Your task to perform on an android device: create a new album in the google photos Image 0: 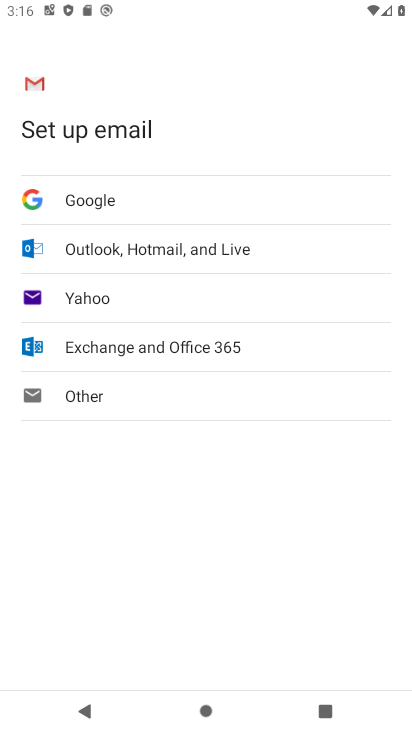
Step 0: press home button
Your task to perform on an android device: create a new album in the google photos Image 1: 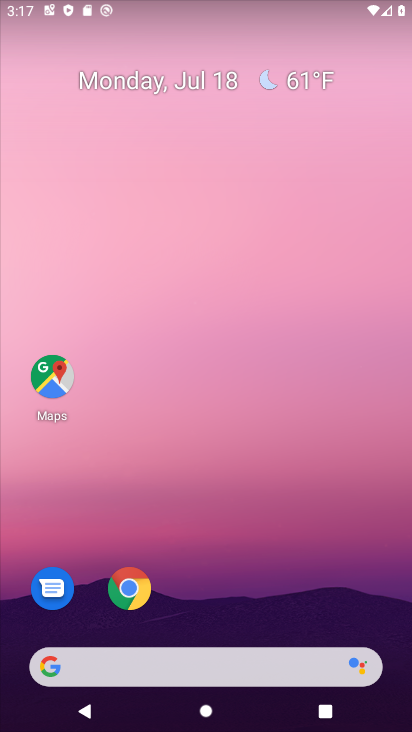
Step 1: drag from (313, 627) to (249, 247)
Your task to perform on an android device: create a new album in the google photos Image 2: 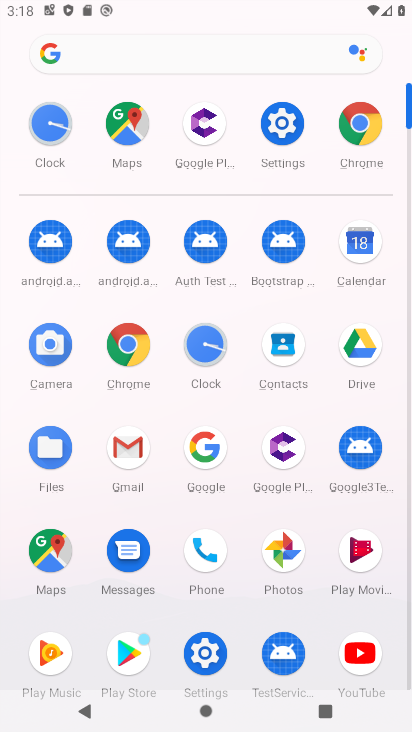
Step 2: click (284, 544)
Your task to perform on an android device: create a new album in the google photos Image 3: 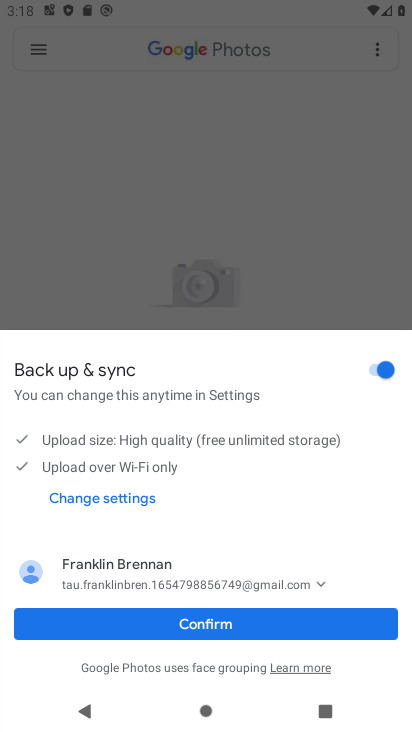
Step 3: click (207, 636)
Your task to perform on an android device: create a new album in the google photos Image 4: 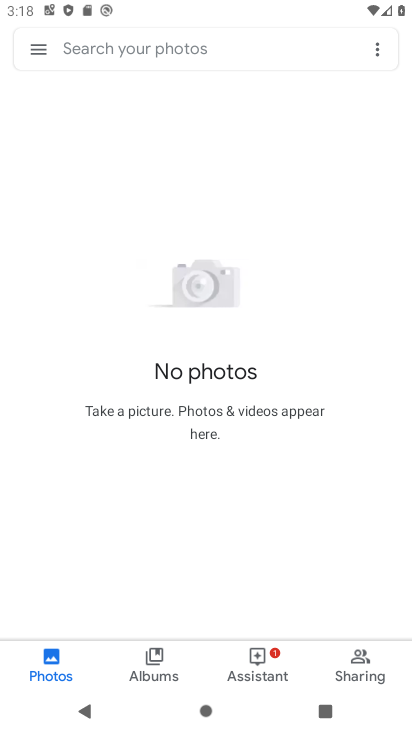
Step 4: task complete